Your task to perform on an android device: open device folders in google photos Image 0: 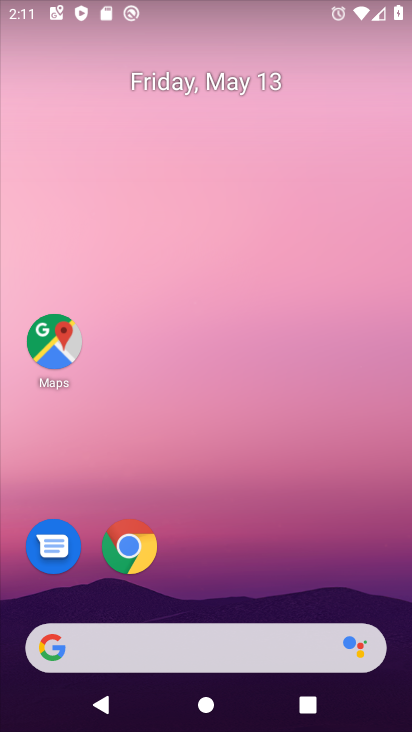
Step 0: drag from (304, 605) to (271, 192)
Your task to perform on an android device: open device folders in google photos Image 1: 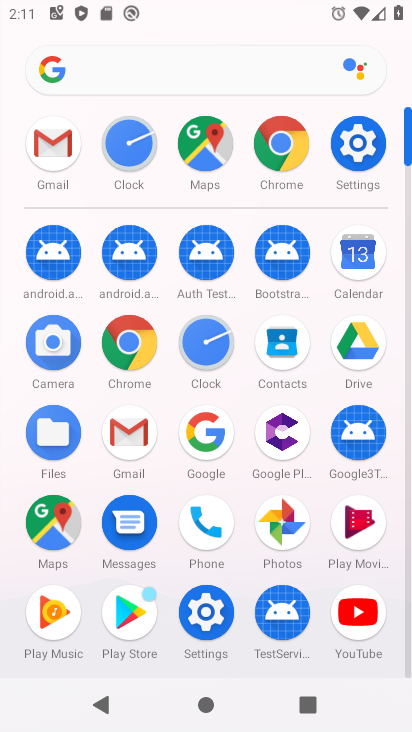
Step 1: click (285, 526)
Your task to perform on an android device: open device folders in google photos Image 2: 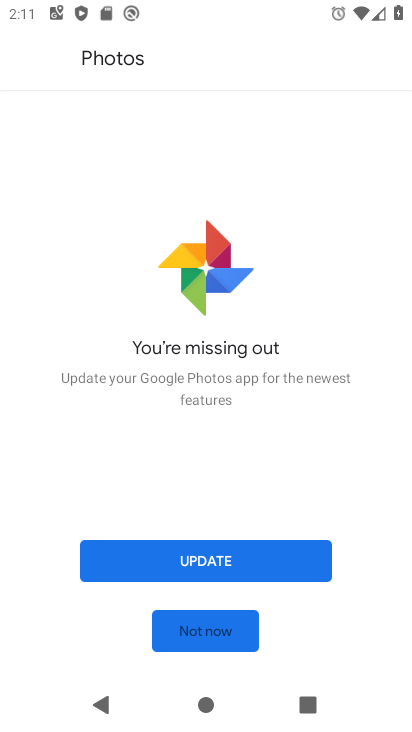
Step 2: click (227, 636)
Your task to perform on an android device: open device folders in google photos Image 3: 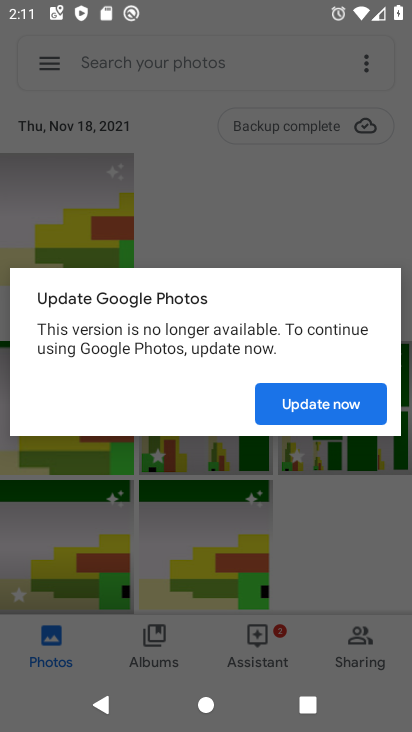
Step 3: click (326, 535)
Your task to perform on an android device: open device folders in google photos Image 4: 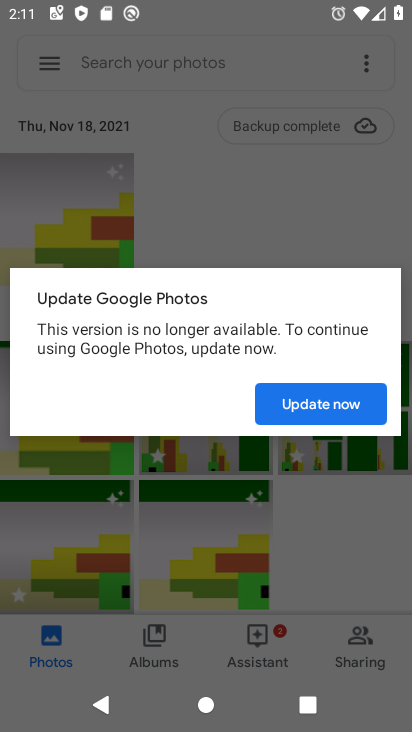
Step 4: click (337, 392)
Your task to perform on an android device: open device folders in google photos Image 5: 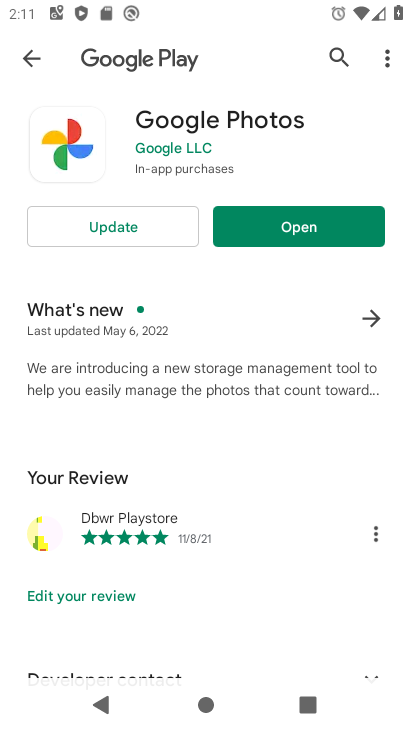
Step 5: click (67, 226)
Your task to perform on an android device: open device folders in google photos Image 6: 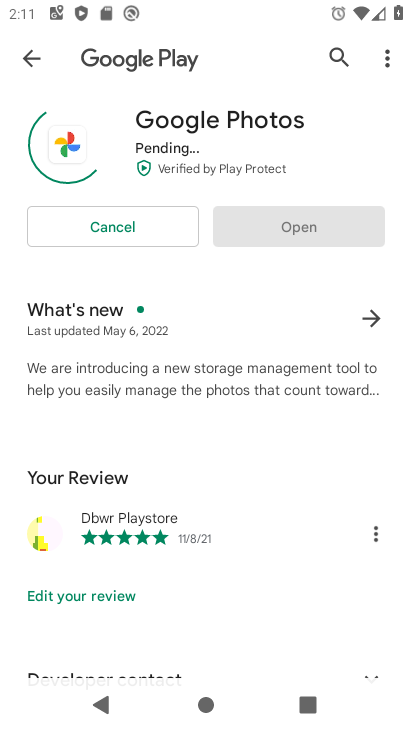
Step 6: task complete